Your task to perform on an android device: turn off javascript in the chrome app Image 0: 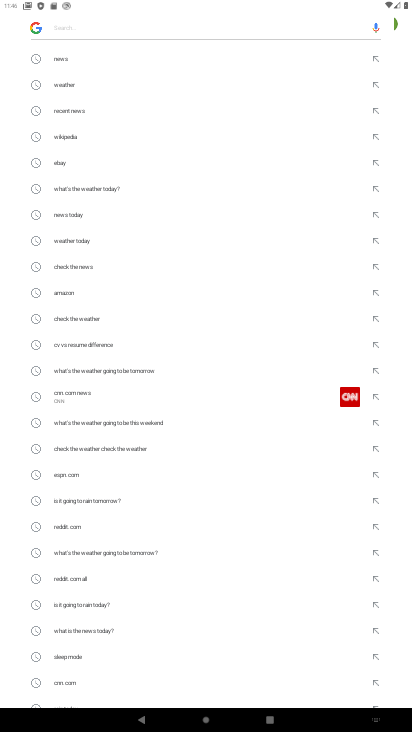
Step 0: press home button
Your task to perform on an android device: turn off javascript in the chrome app Image 1: 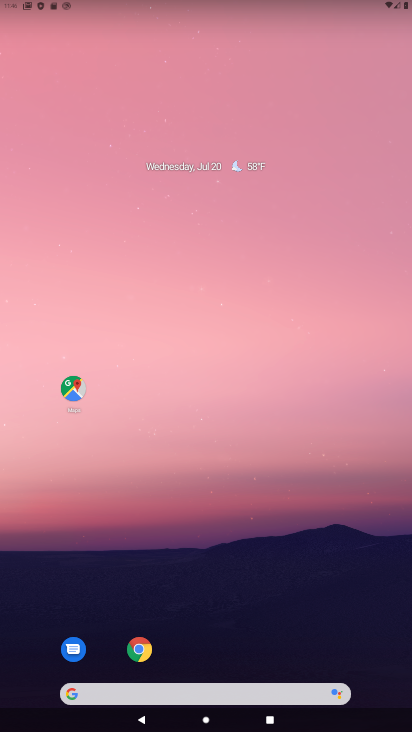
Step 1: click (140, 646)
Your task to perform on an android device: turn off javascript in the chrome app Image 2: 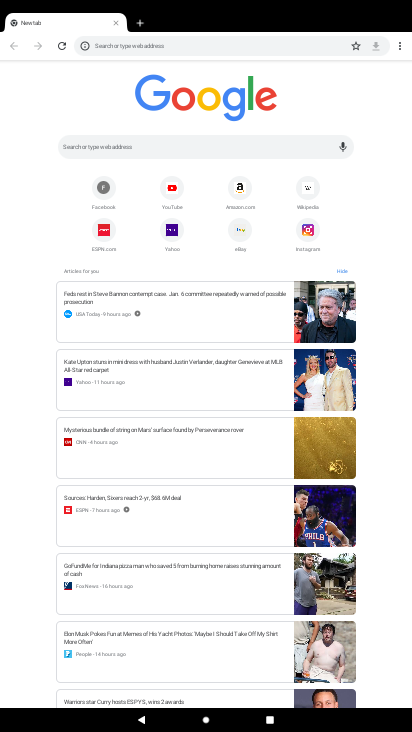
Step 2: click (398, 47)
Your task to perform on an android device: turn off javascript in the chrome app Image 3: 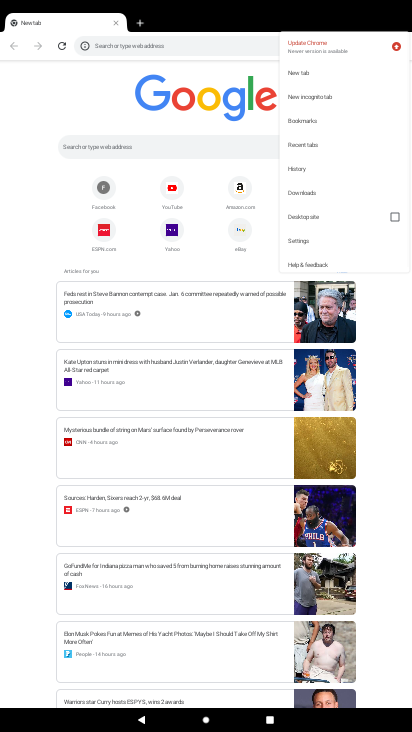
Step 3: click (300, 241)
Your task to perform on an android device: turn off javascript in the chrome app Image 4: 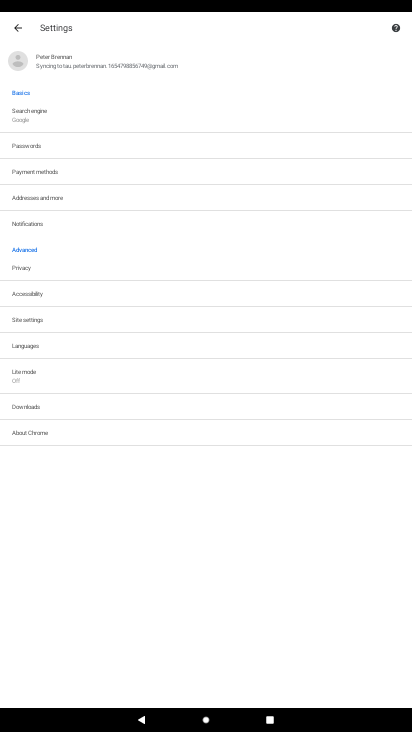
Step 4: click (41, 323)
Your task to perform on an android device: turn off javascript in the chrome app Image 5: 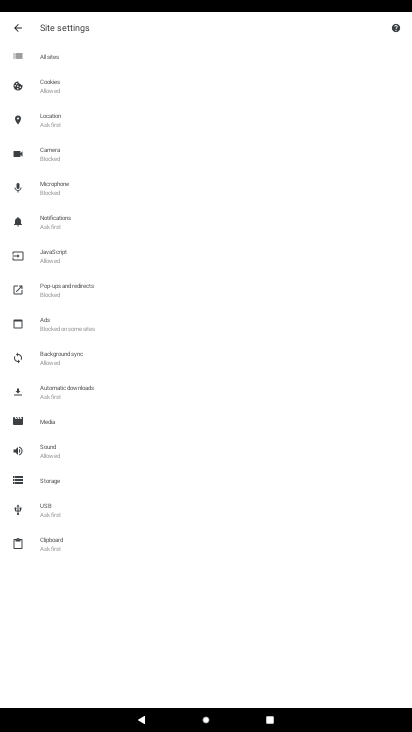
Step 5: click (69, 257)
Your task to perform on an android device: turn off javascript in the chrome app Image 6: 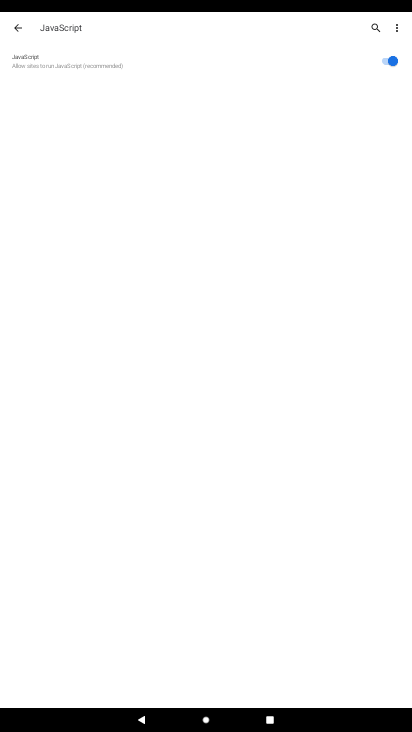
Step 6: click (389, 61)
Your task to perform on an android device: turn off javascript in the chrome app Image 7: 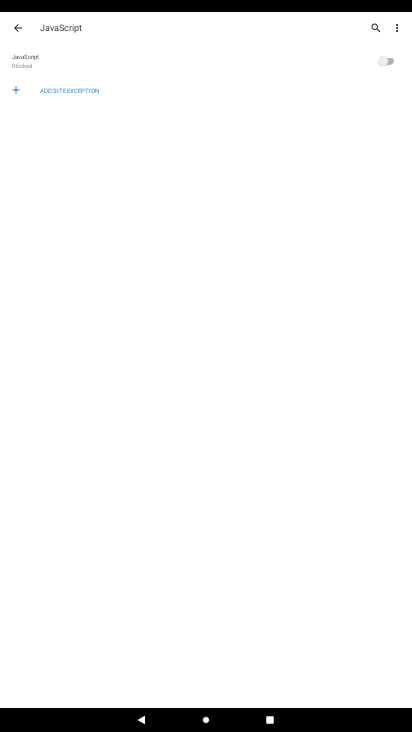
Step 7: task complete